Your task to perform on an android device: Open Wikipedia Image 0: 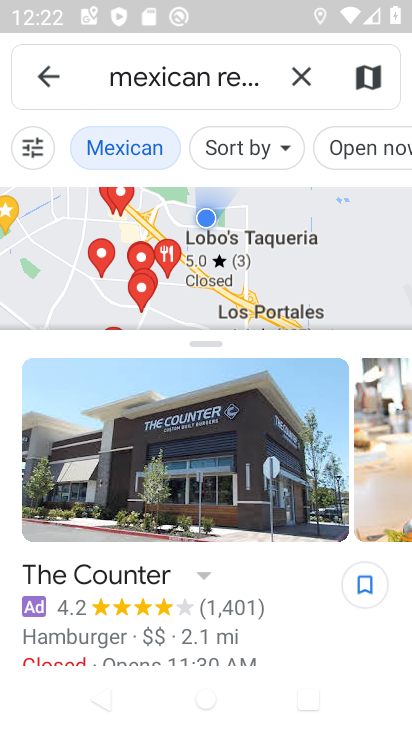
Step 0: press home button
Your task to perform on an android device: Open Wikipedia Image 1: 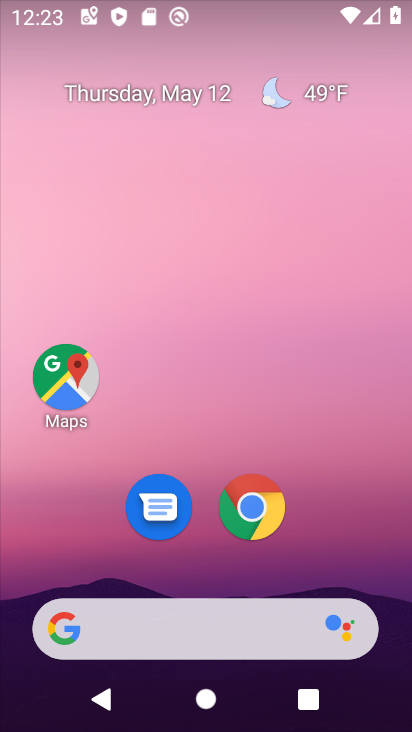
Step 1: click (250, 519)
Your task to perform on an android device: Open Wikipedia Image 2: 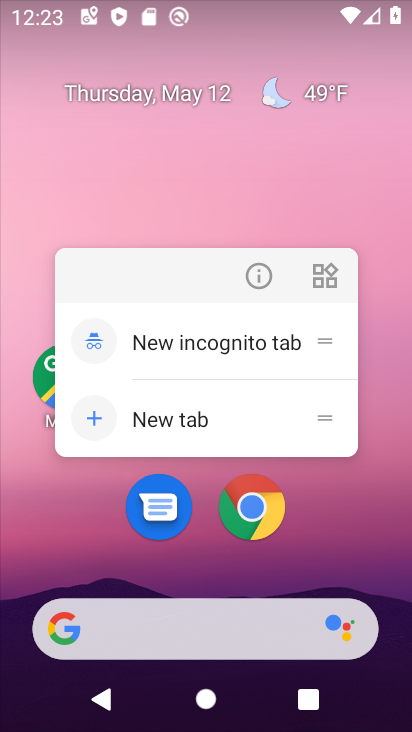
Step 2: click (257, 528)
Your task to perform on an android device: Open Wikipedia Image 3: 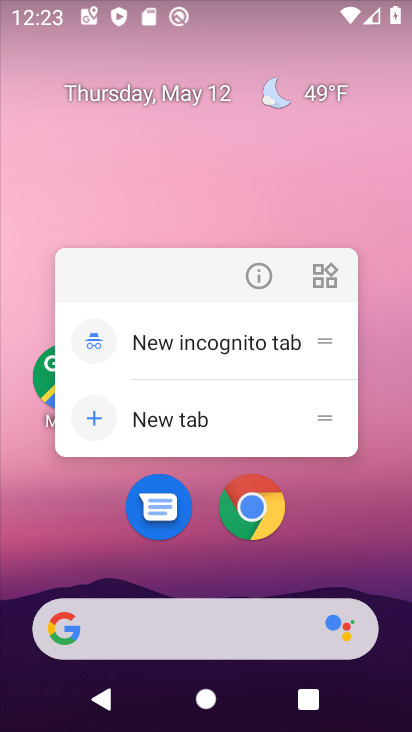
Step 3: click (240, 506)
Your task to perform on an android device: Open Wikipedia Image 4: 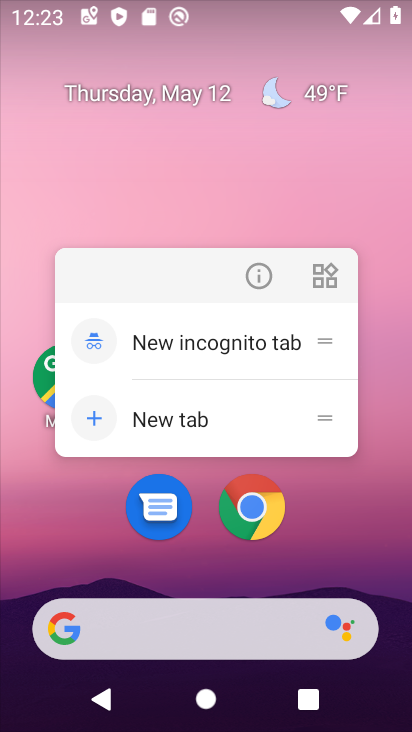
Step 4: click (240, 506)
Your task to perform on an android device: Open Wikipedia Image 5: 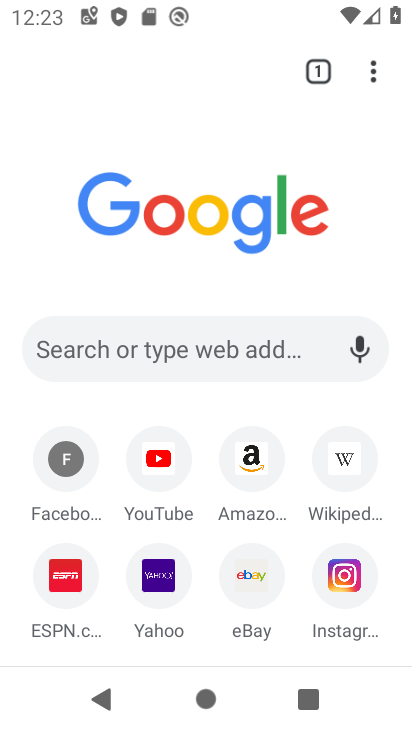
Step 5: click (351, 457)
Your task to perform on an android device: Open Wikipedia Image 6: 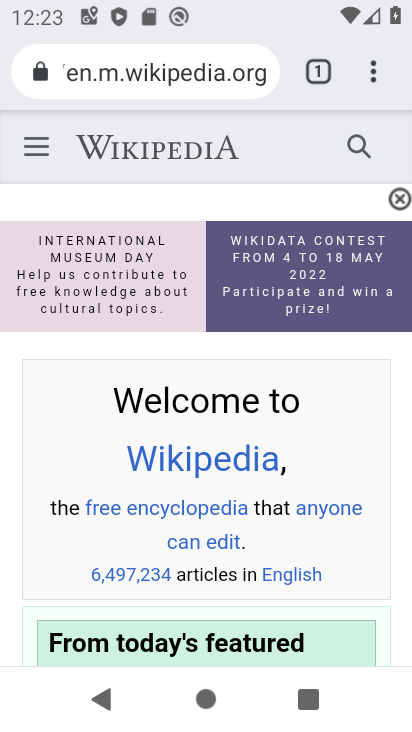
Step 6: task complete